Your task to perform on an android device: Open network settings Image 0: 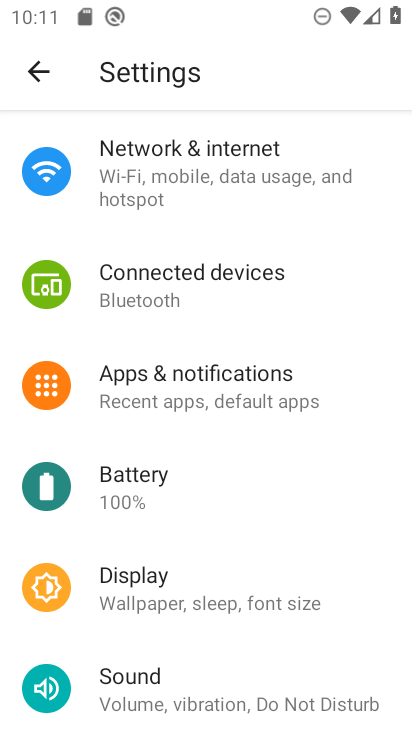
Step 0: click (217, 163)
Your task to perform on an android device: Open network settings Image 1: 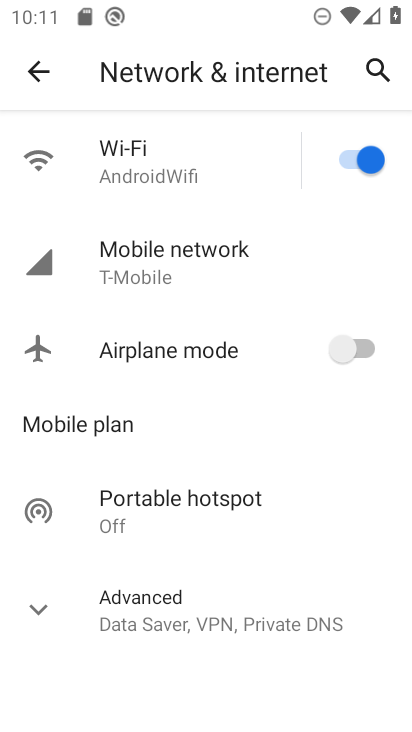
Step 1: click (167, 624)
Your task to perform on an android device: Open network settings Image 2: 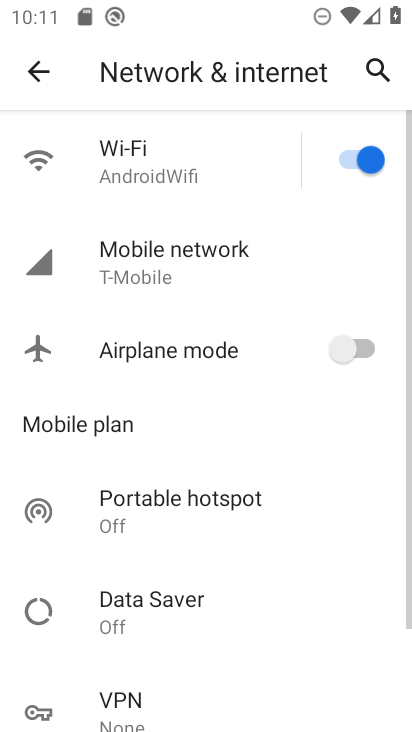
Step 2: task complete